Your task to perform on an android device: install app "Google Keep" Image 0: 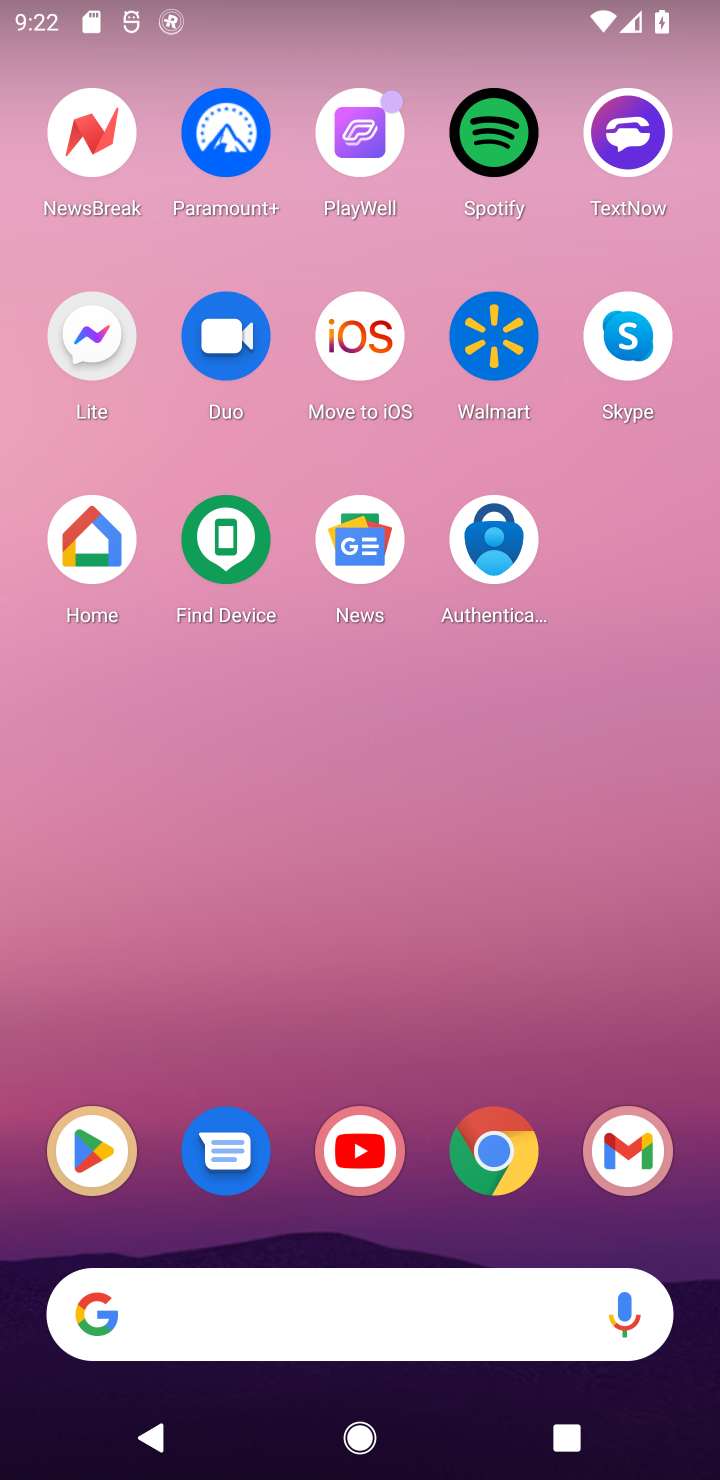
Step 0: click (100, 1164)
Your task to perform on an android device: install app "Google Keep" Image 1: 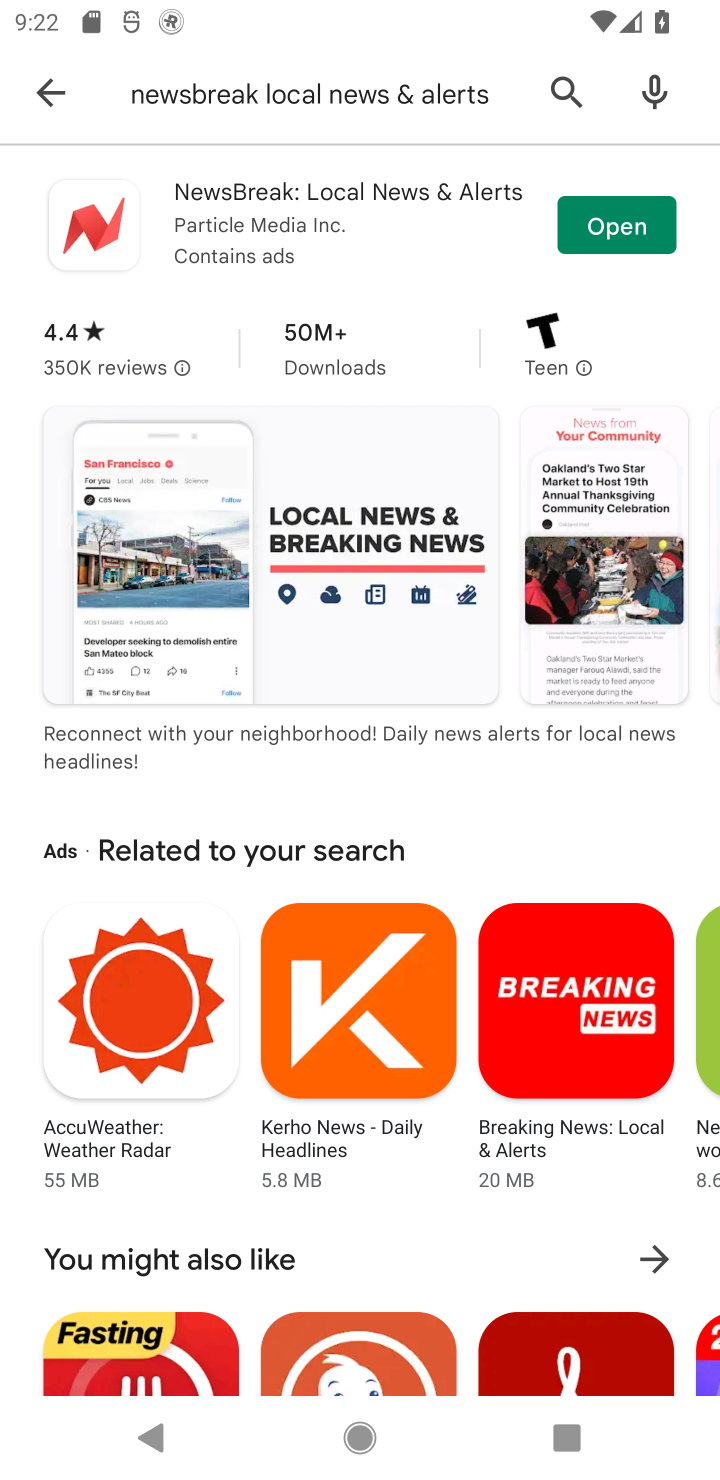
Step 1: click (560, 109)
Your task to perform on an android device: install app "Google Keep" Image 2: 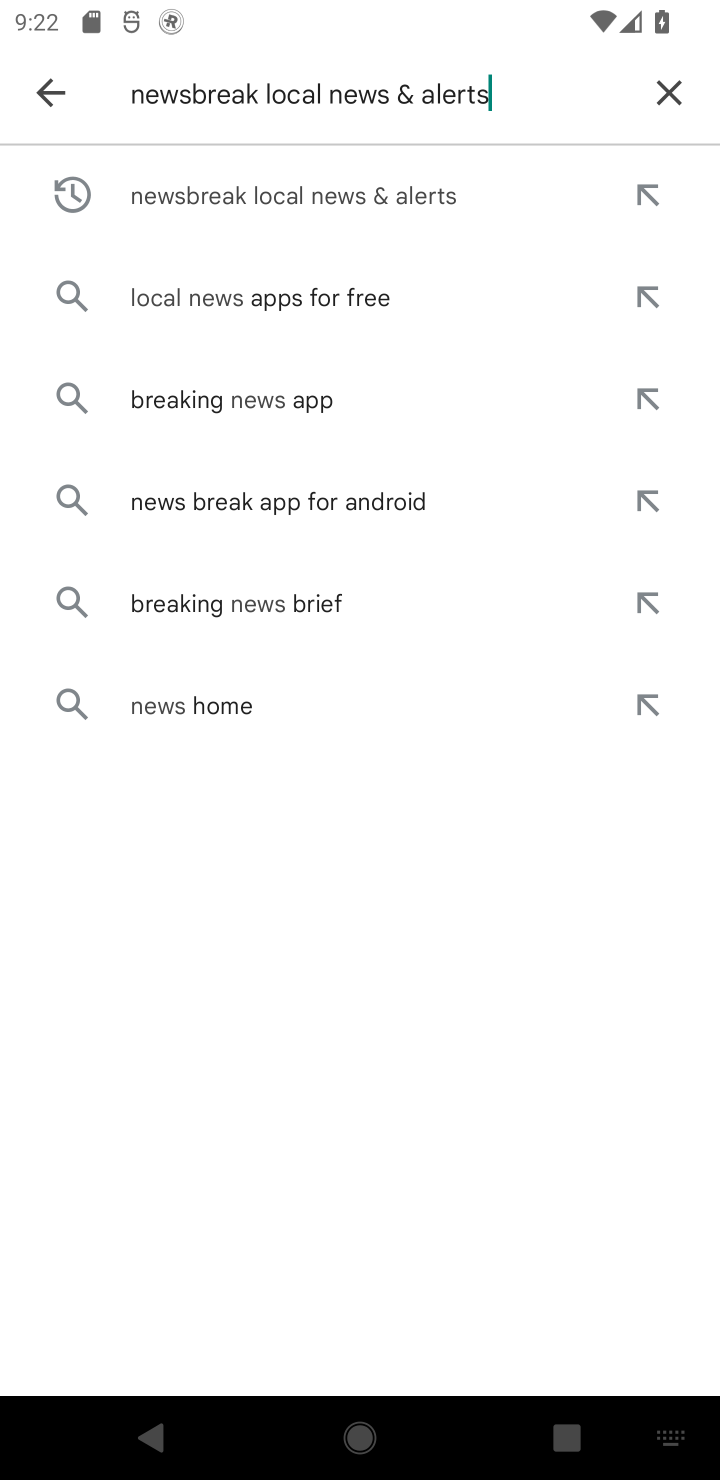
Step 2: click (665, 82)
Your task to perform on an android device: install app "Google Keep" Image 3: 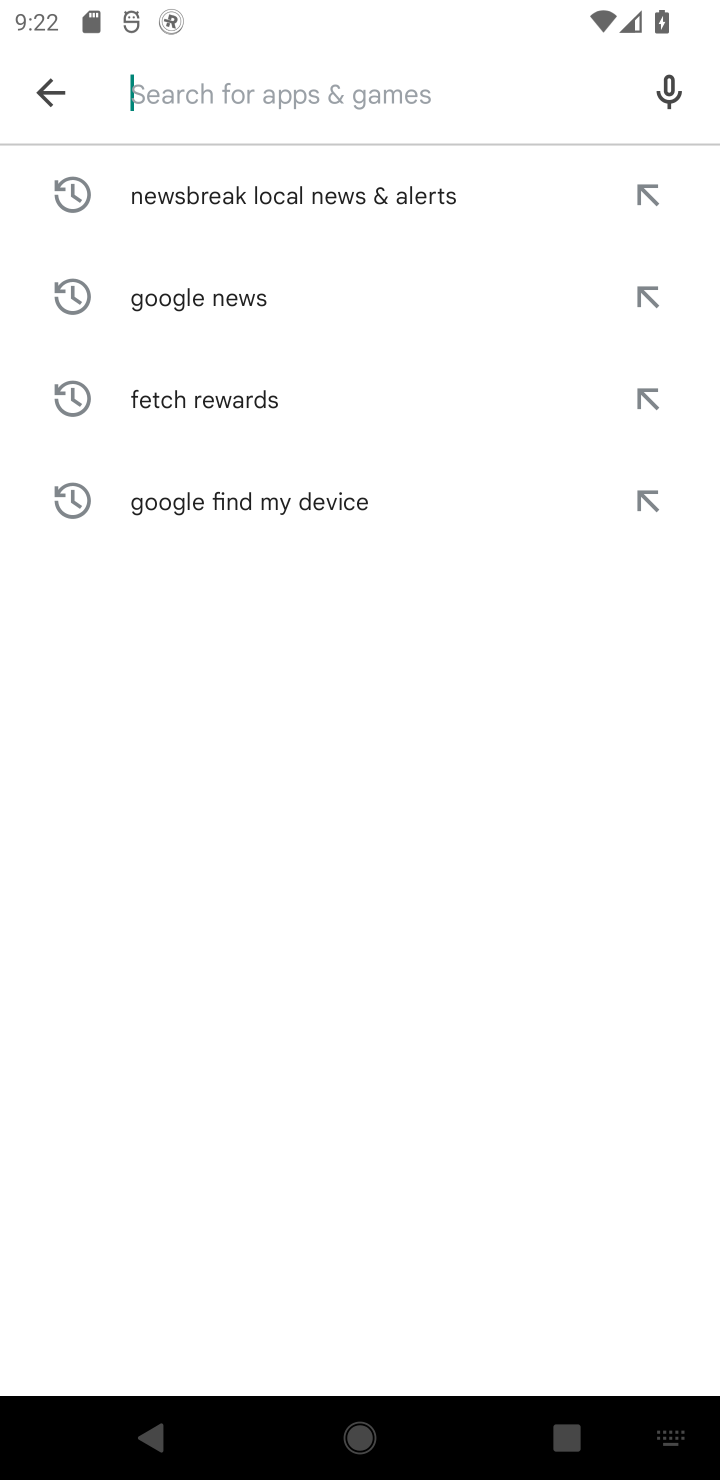
Step 3: type "Google Keep"
Your task to perform on an android device: install app "Google Keep" Image 4: 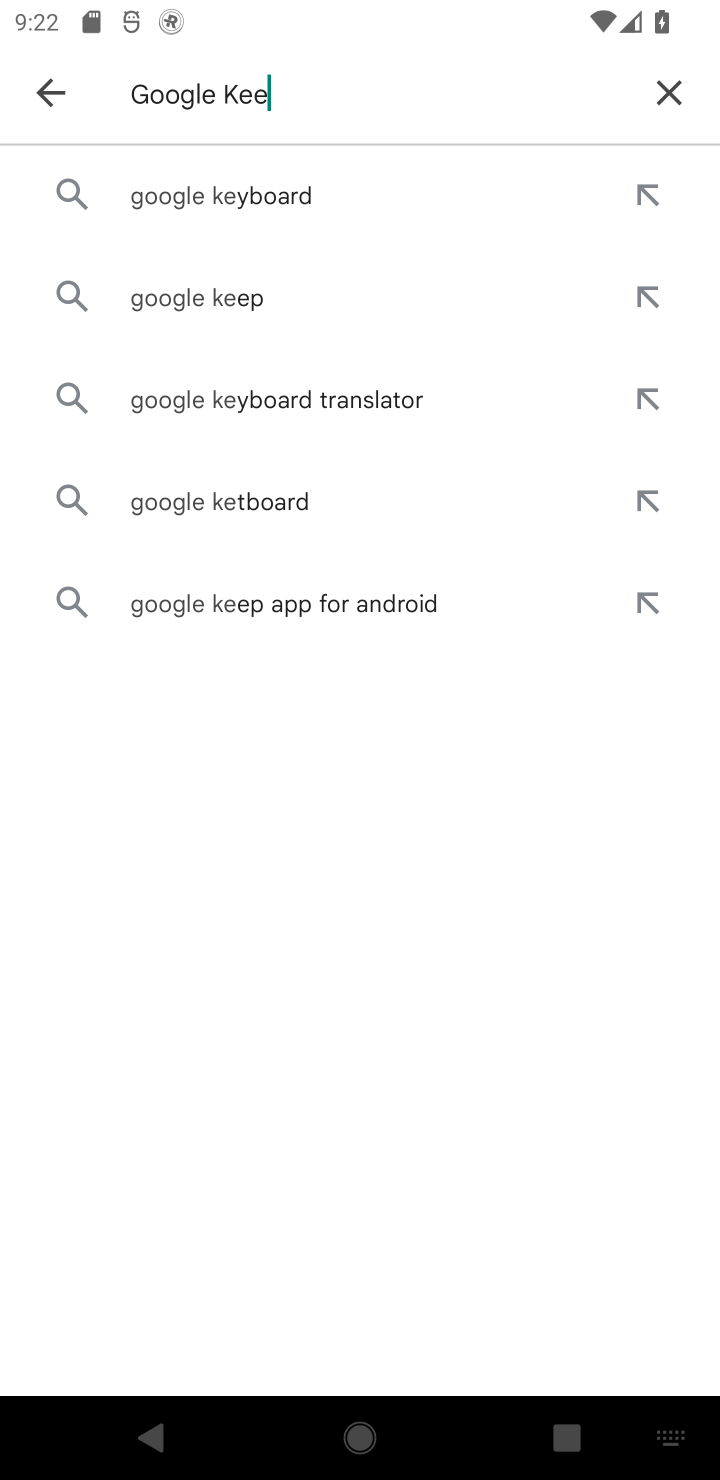
Step 4: type ""
Your task to perform on an android device: install app "Google Keep" Image 5: 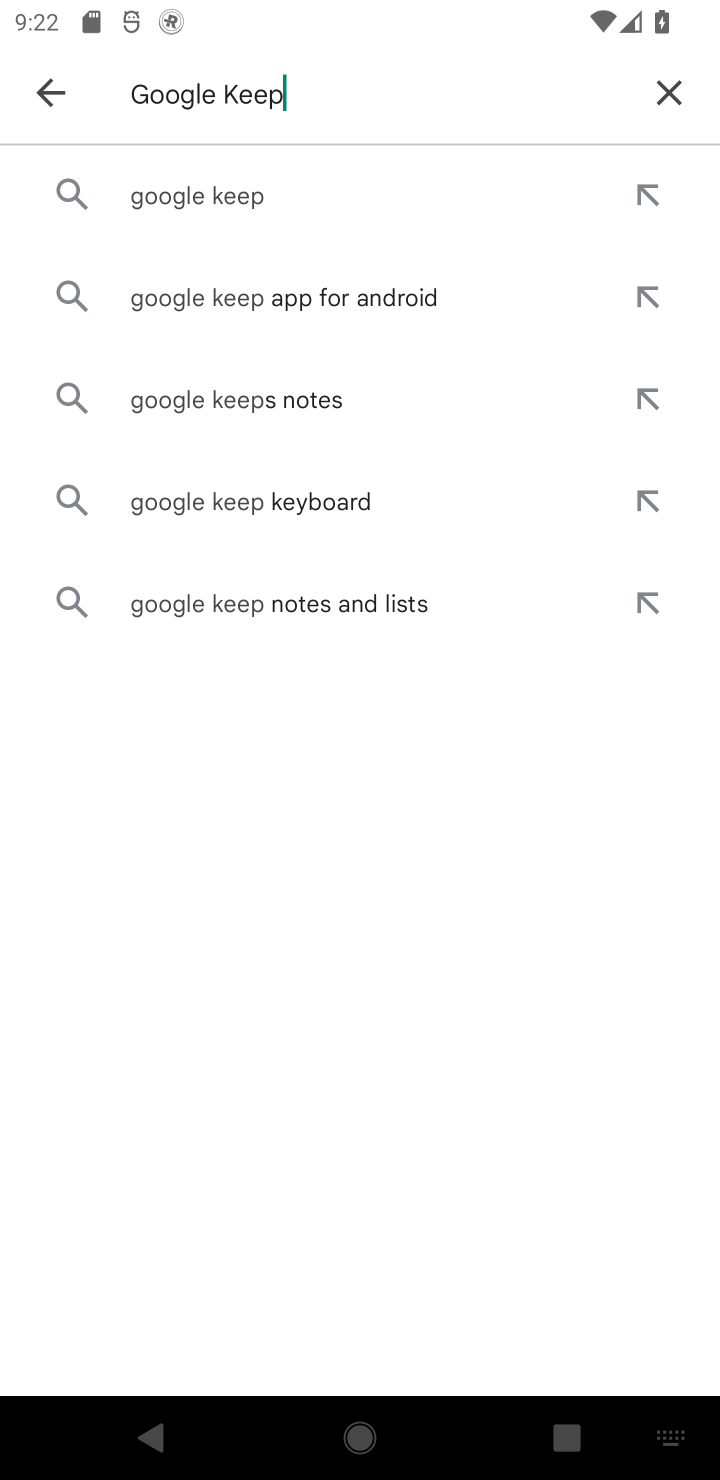
Step 5: click (155, 191)
Your task to perform on an android device: install app "Google Keep" Image 6: 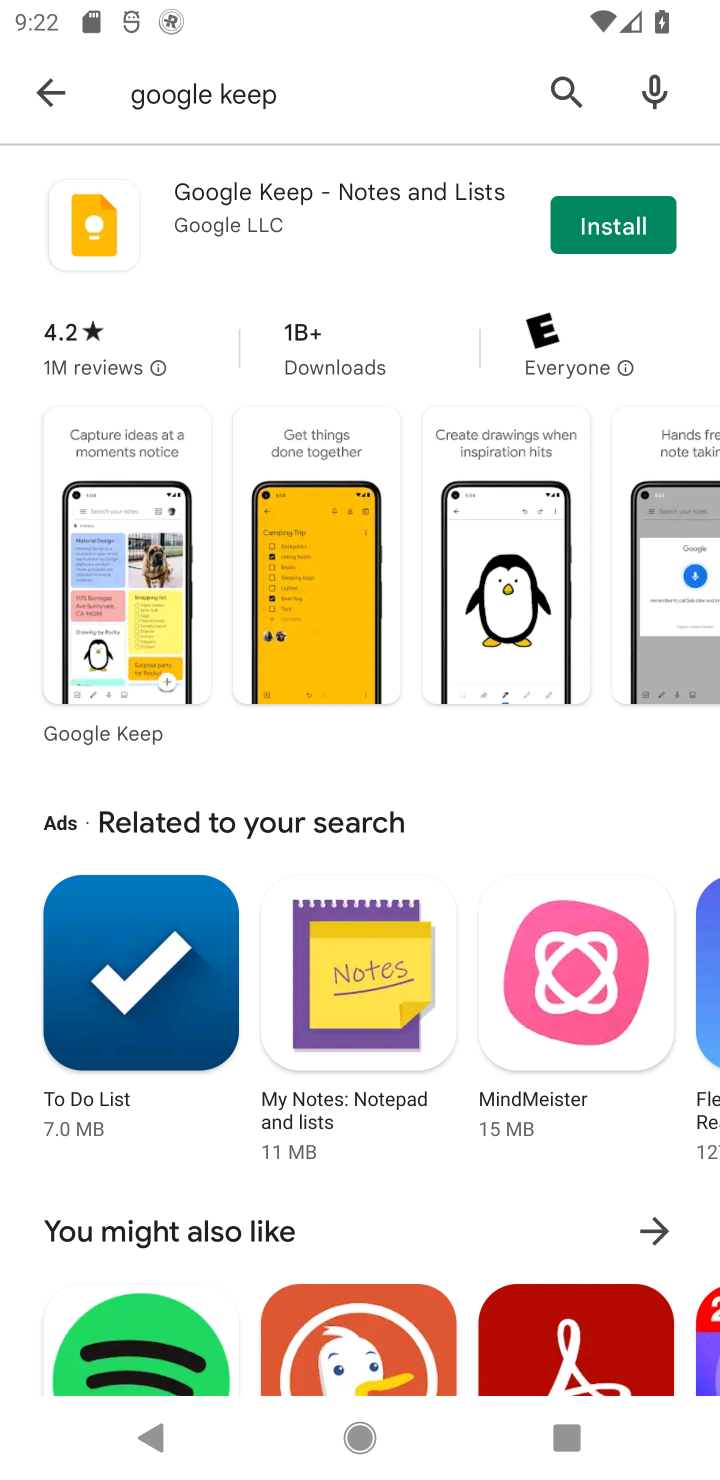
Step 6: click (599, 226)
Your task to perform on an android device: install app "Google Keep" Image 7: 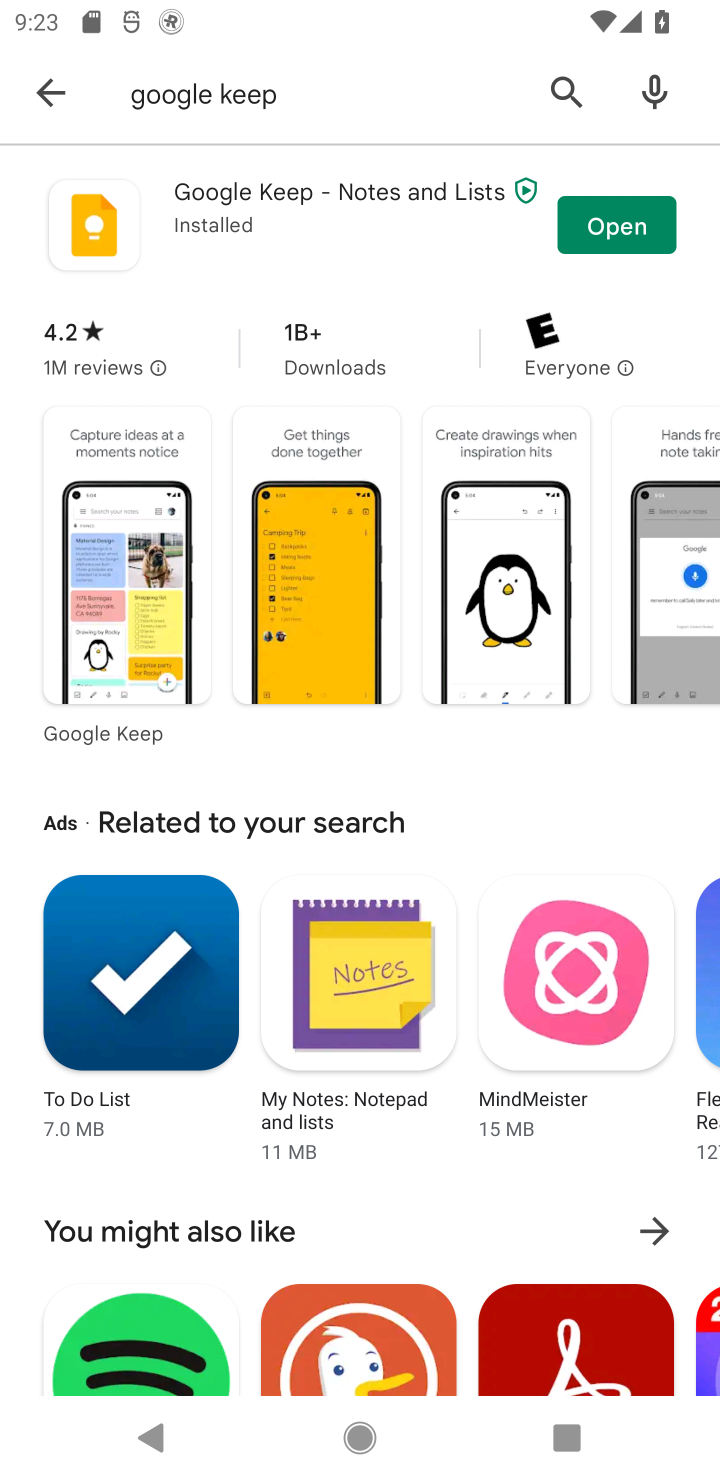
Step 7: task complete